Your task to perform on an android device: Open Google Maps and go to "Timeline" Image 0: 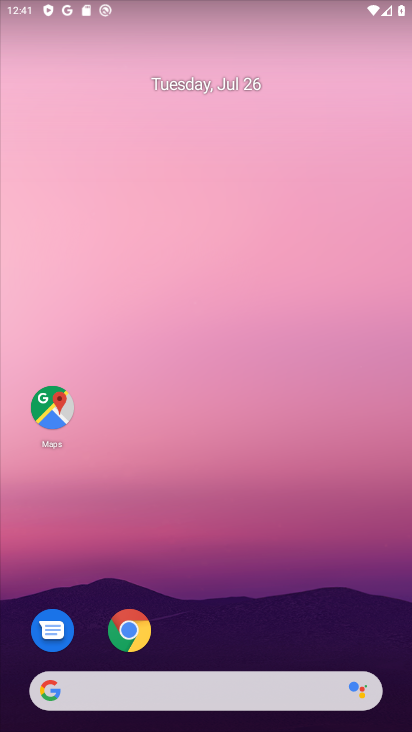
Step 0: click (55, 411)
Your task to perform on an android device: Open Google Maps and go to "Timeline" Image 1: 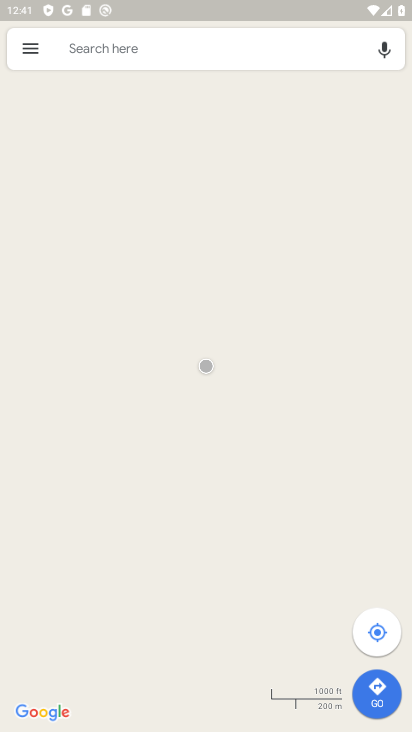
Step 1: click (22, 43)
Your task to perform on an android device: Open Google Maps and go to "Timeline" Image 2: 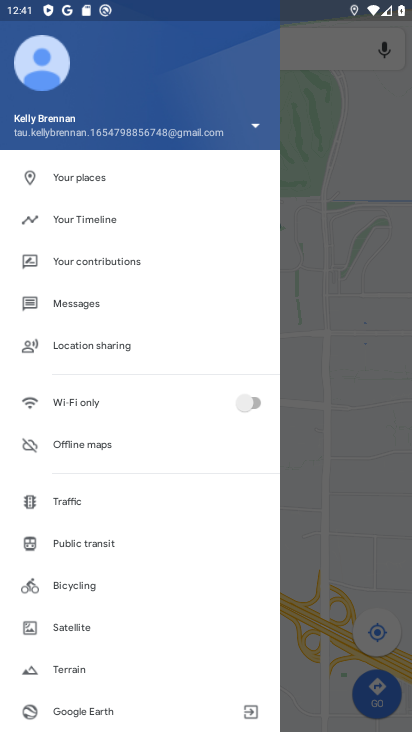
Step 2: click (68, 221)
Your task to perform on an android device: Open Google Maps and go to "Timeline" Image 3: 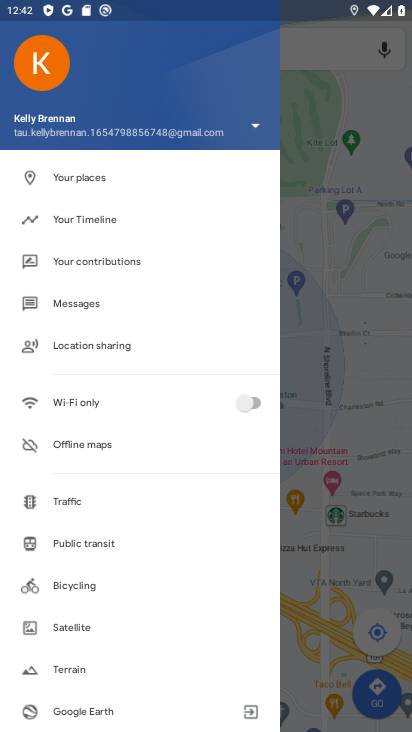
Step 3: click (68, 221)
Your task to perform on an android device: Open Google Maps and go to "Timeline" Image 4: 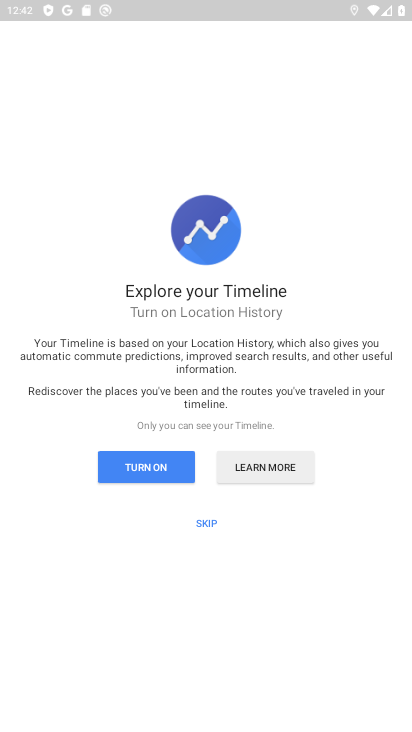
Step 4: click (157, 461)
Your task to perform on an android device: Open Google Maps and go to "Timeline" Image 5: 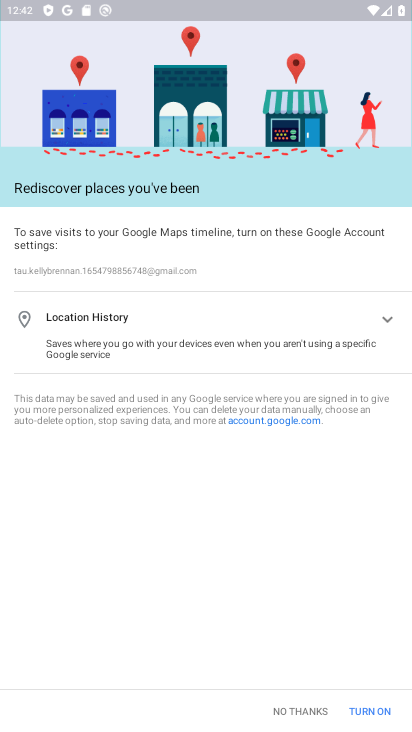
Step 5: task complete